Your task to perform on an android device: Open Google Image 0: 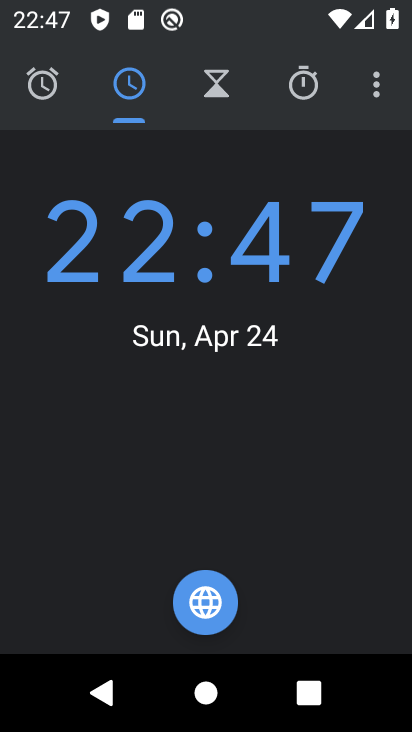
Step 0: press home button
Your task to perform on an android device: Open Google Image 1: 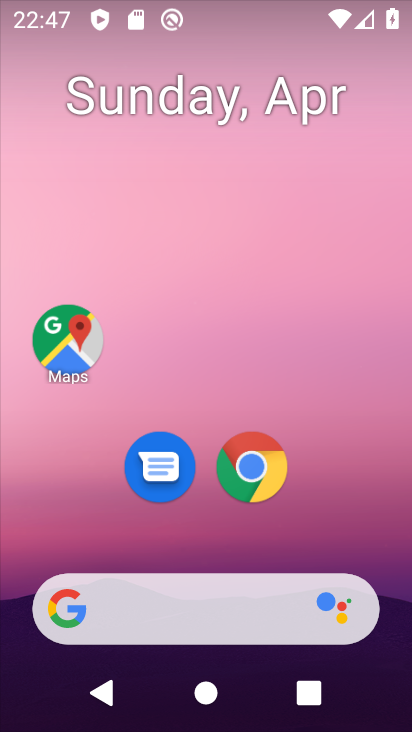
Step 1: drag from (329, 407) to (372, 126)
Your task to perform on an android device: Open Google Image 2: 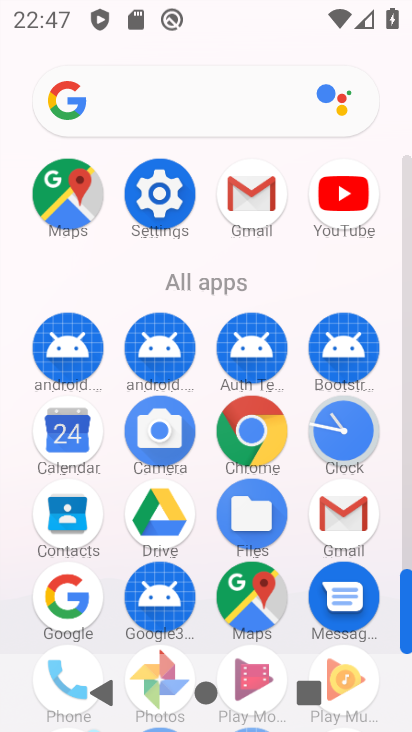
Step 2: click (64, 608)
Your task to perform on an android device: Open Google Image 3: 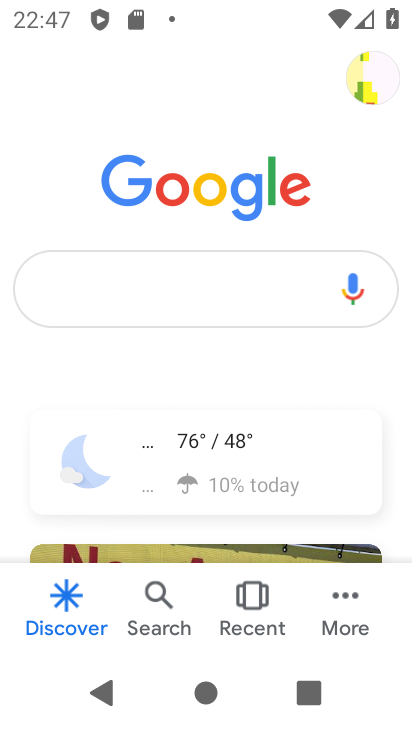
Step 3: task complete